Your task to perform on an android device: change notifications settings Image 0: 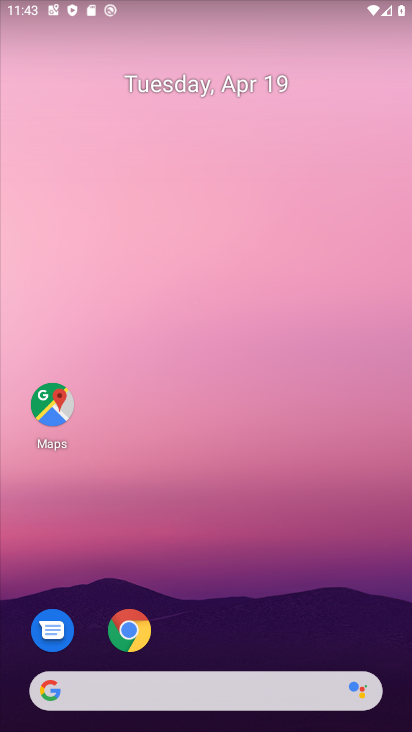
Step 0: drag from (309, 589) to (319, 118)
Your task to perform on an android device: change notifications settings Image 1: 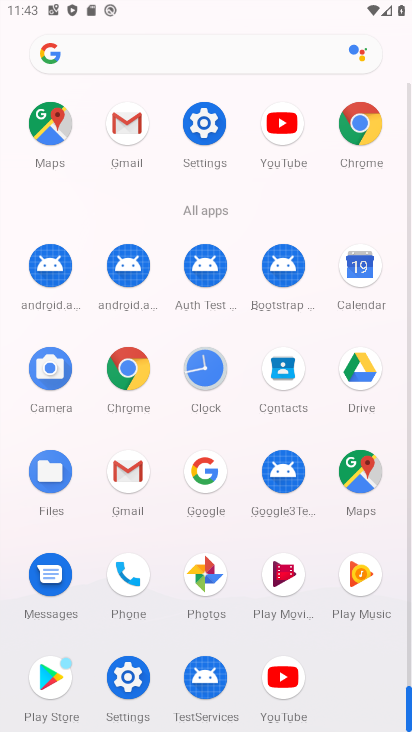
Step 1: click (137, 680)
Your task to perform on an android device: change notifications settings Image 2: 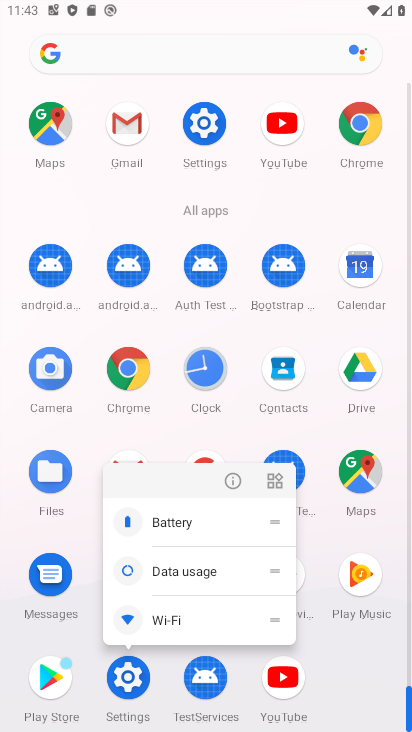
Step 2: click (133, 683)
Your task to perform on an android device: change notifications settings Image 3: 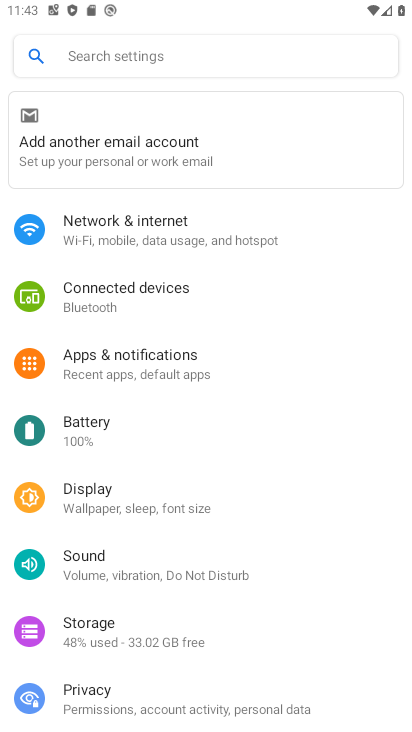
Step 3: click (131, 357)
Your task to perform on an android device: change notifications settings Image 4: 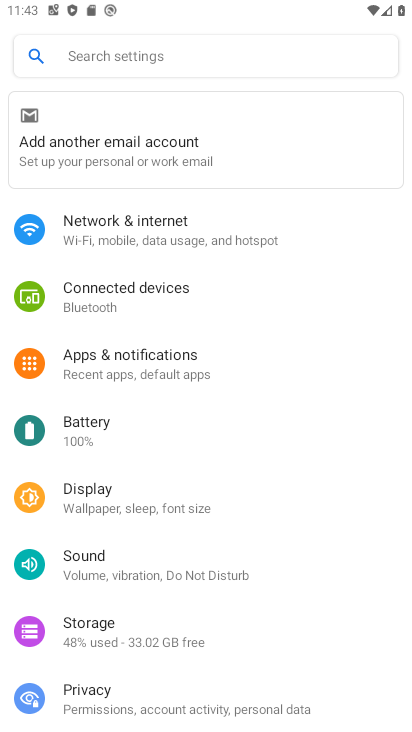
Step 4: click (131, 357)
Your task to perform on an android device: change notifications settings Image 5: 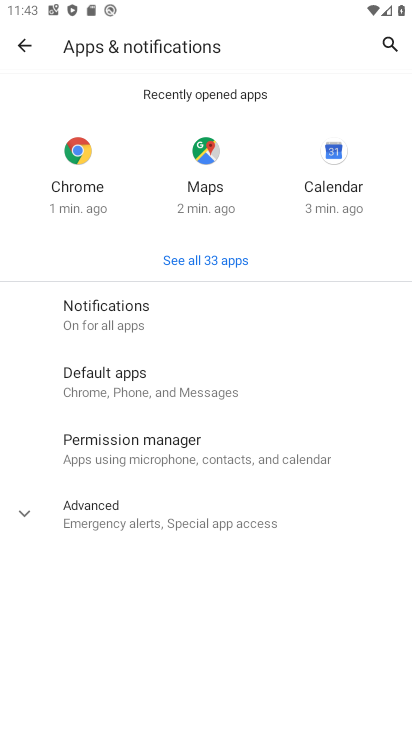
Step 5: click (112, 317)
Your task to perform on an android device: change notifications settings Image 6: 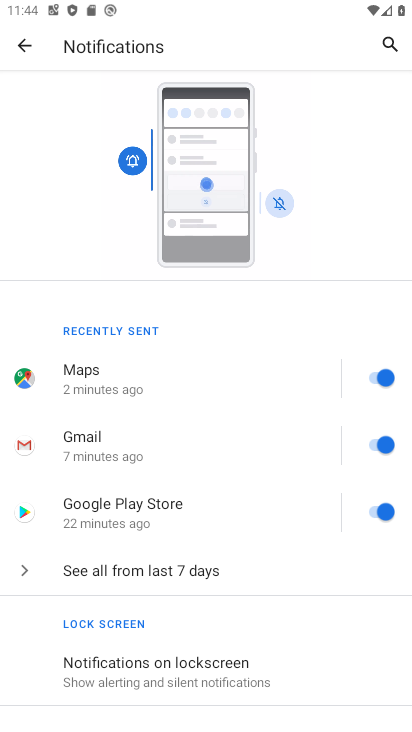
Step 6: drag from (269, 640) to (335, 210)
Your task to perform on an android device: change notifications settings Image 7: 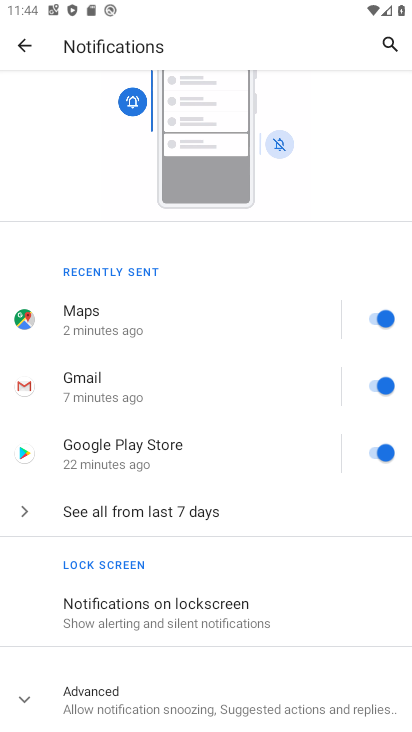
Step 7: click (374, 446)
Your task to perform on an android device: change notifications settings Image 8: 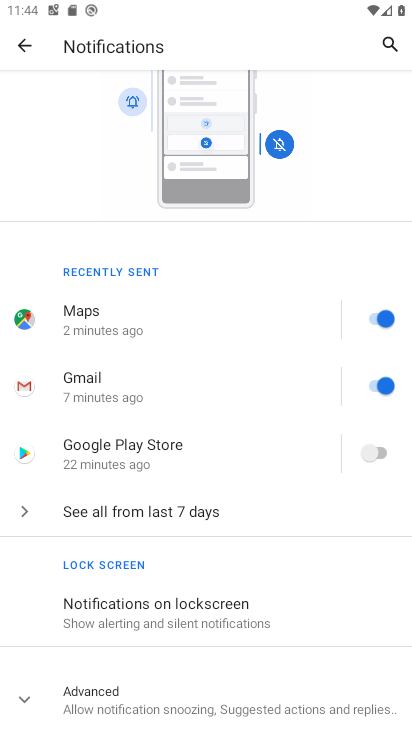
Step 8: task complete